Your task to perform on an android device: toggle airplane mode Image 0: 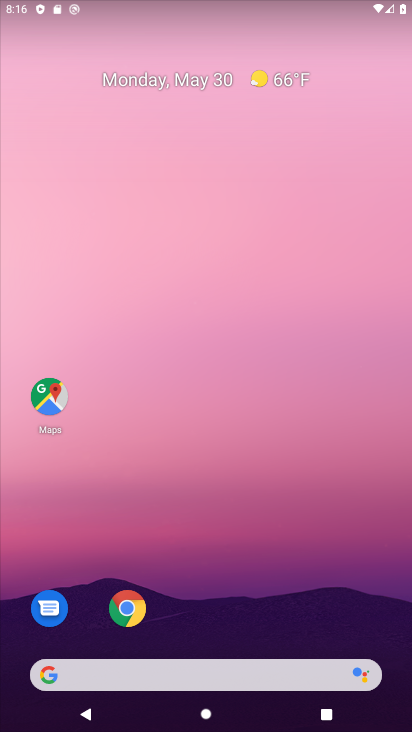
Step 0: drag from (244, 726) to (254, 548)
Your task to perform on an android device: toggle airplane mode Image 1: 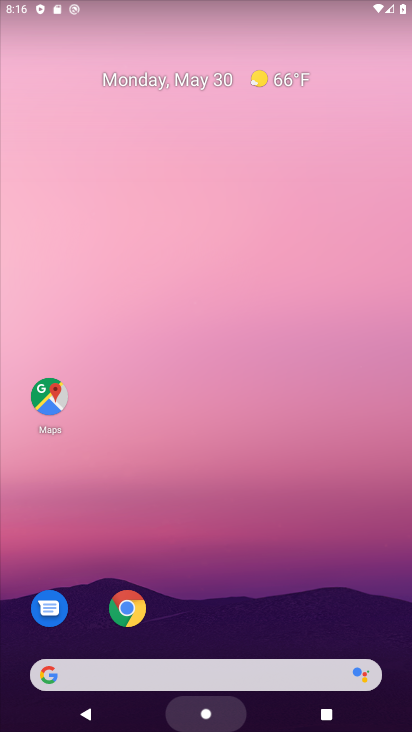
Step 1: click (254, 19)
Your task to perform on an android device: toggle airplane mode Image 2: 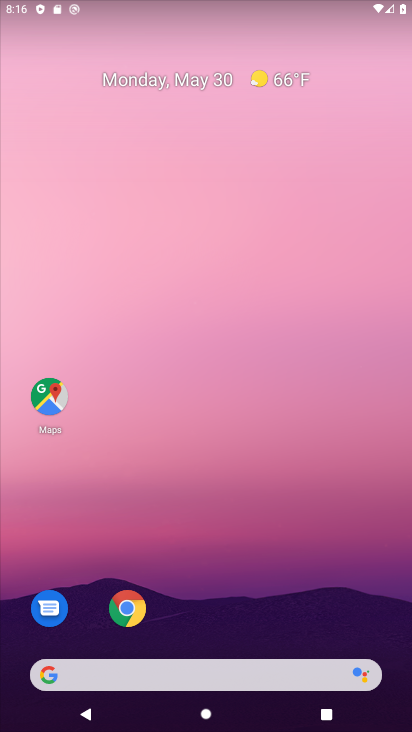
Step 2: drag from (223, 709) to (216, 305)
Your task to perform on an android device: toggle airplane mode Image 3: 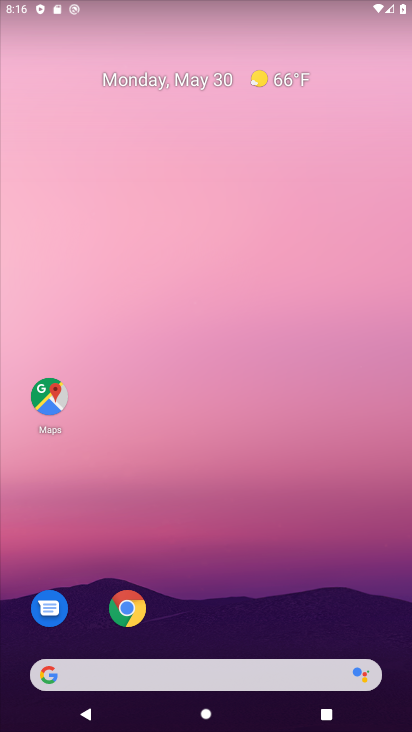
Step 3: drag from (216, 728) to (218, 451)
Your task to perform on an android device: toggle airplane mode Image 4: 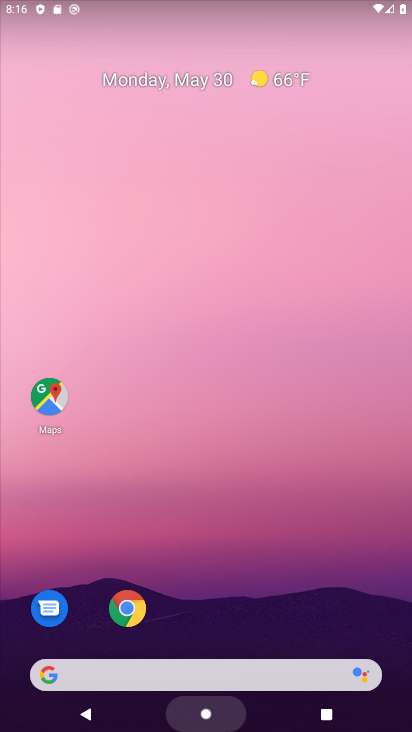
Step 4: click (196, 4)
Your task to perform on an android device: toggle airplane mode Image 5: 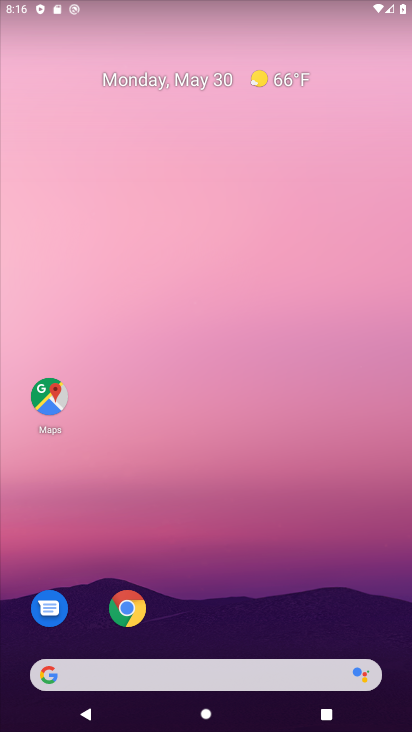
Step 5: drag from (227, 726) to (233, 439)
Your task to perform on an android device: toggle airplane mode Image 6: 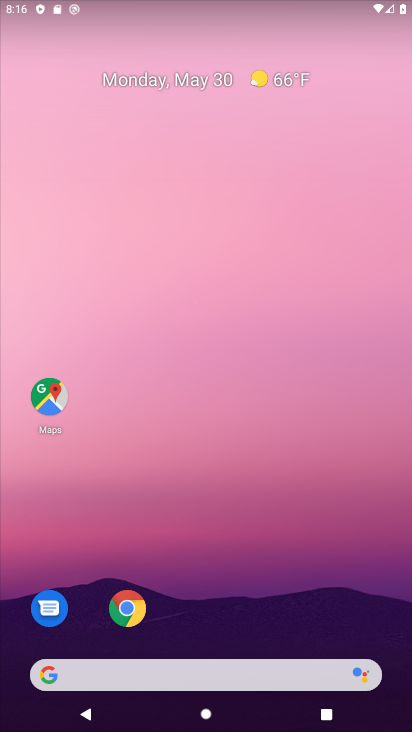
Step 6: drag from (236, 726) to (245, 617)
Your task to perform on an android device: toggle airplane mode Image 7: 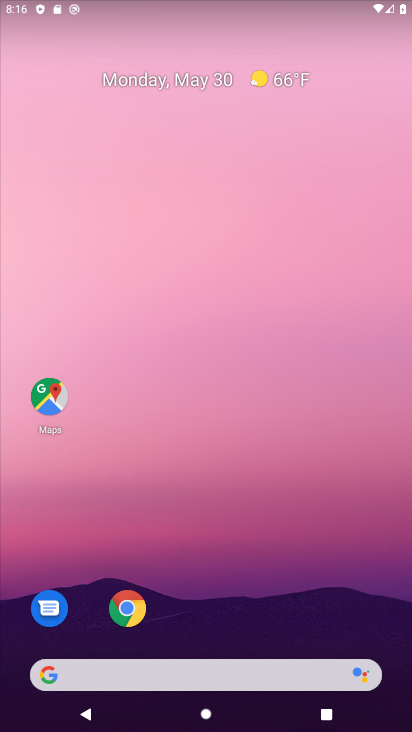
Step 7: drag from (217, 724) to (236, 10)
Your task to perform on an android device: toggle airplane mode Image 8: 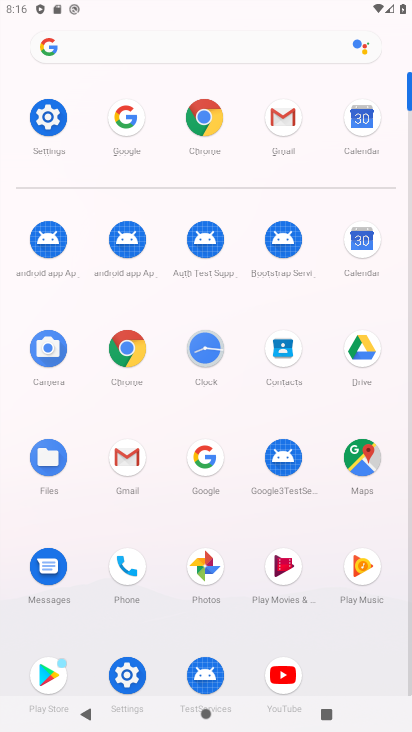
Step 8: click (43, 118)
Your task to perform on an android device: toggle airplane mode Image 9: 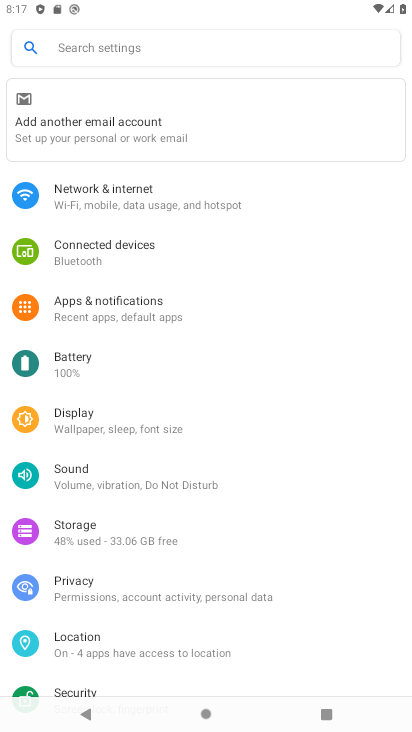
Step 9: click (80, 192)
Your task to perform on an android device: toggle airplane mode Image 10: 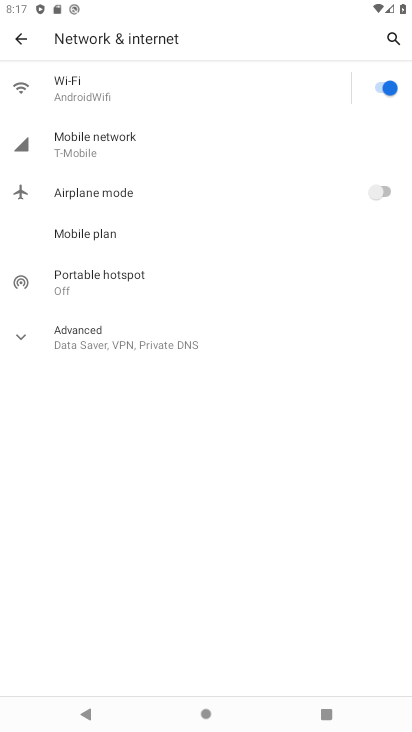
Step 10: click (385, 189)
Your task to perform on an android device: toggle airplane mode Image 11: 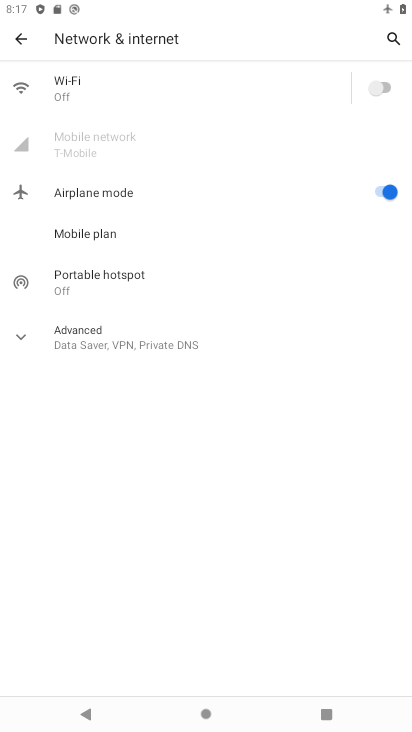
Step 11: task complete